Your task to perform on an android device: Go to Maps Image 0: 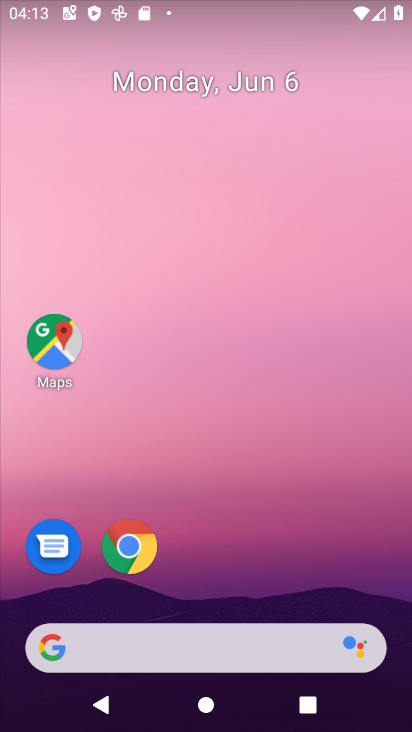
Step 0: click (55, 365)
Your task to perform on an android device: Go to Maps Image 1: 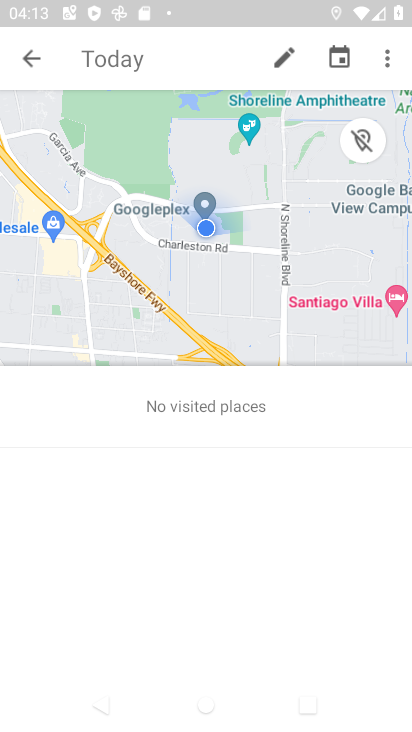
Step 1: task complete